Your task to perform on an android device: open the mobile data screen to see how much data has been used Image 0: 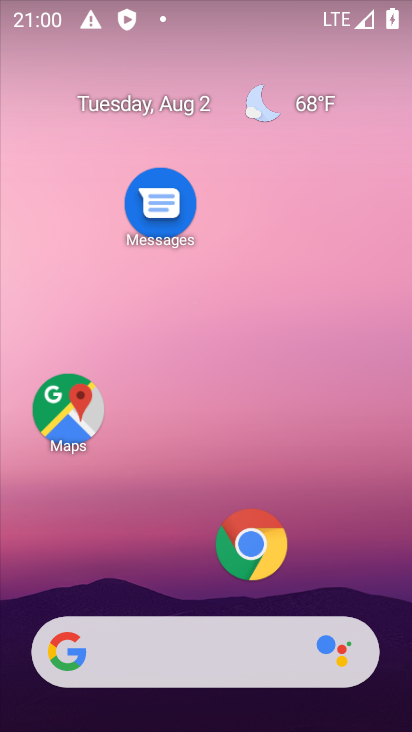
Step 0: drag from (177, 567) to (225, 118)
Your task to perform on an android device: open the mobile data screen to see how much data has been used Image 1: 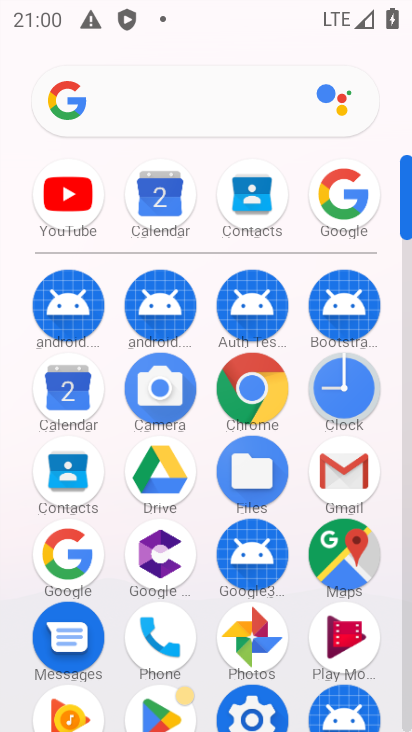
Step 1: drag from (113, 513) to (143, 237)
Your task to perform on an android device: open the mobile data screen to see how much data has been used Image 2: 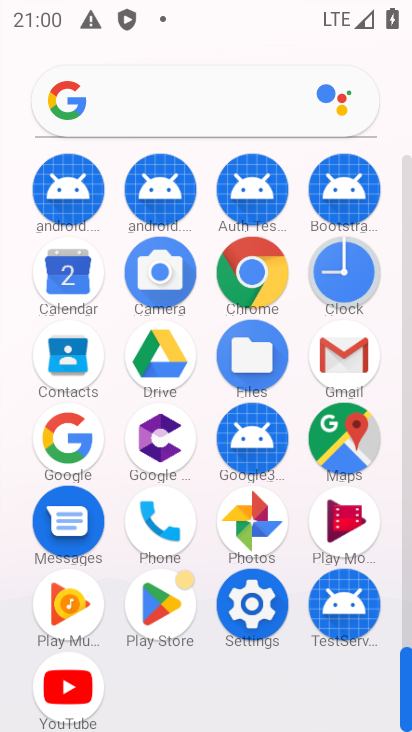
Step 2: click (254, 601)
Your task to perform on an android device: open the mobile data screen to see how much data has been used Image 3: 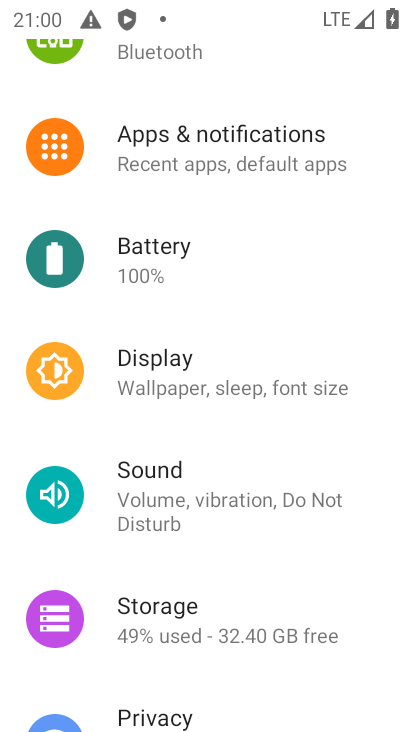
Step 3: drag from (247, 246) to (277, 587)
Your task to perform on an android device: open the mobile data screen to see how much data has been used Image 4: 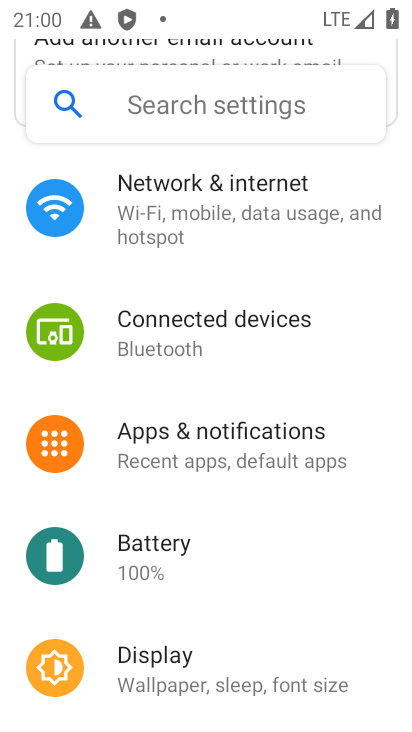
Step 4: click (193, 233)
Your task to perform on an android device: open the mobile data screen to see how much data has been used Image 5: 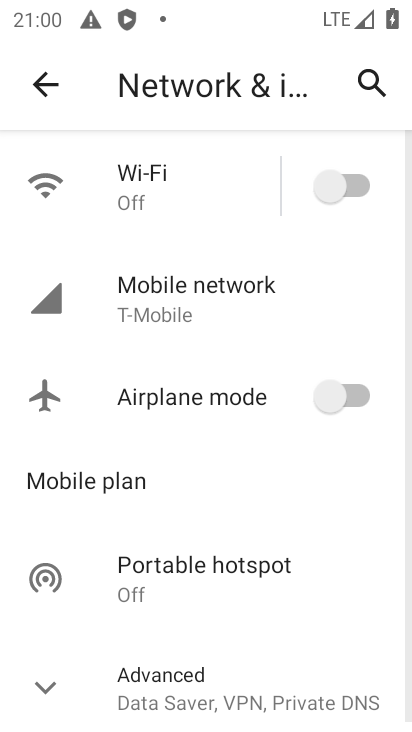
Step 5: click (193, 283)
Your task to perform on an android device: open the mobile data screen to see how much data has been used Image 6: 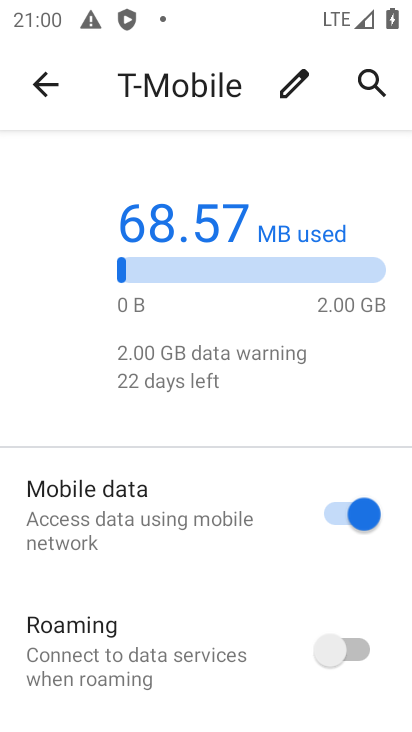
Step 6: drag from (180, 587) to (214, 321)
Your task to perform on an android device: open the mobile data screen to see how much data has been used Image 7: 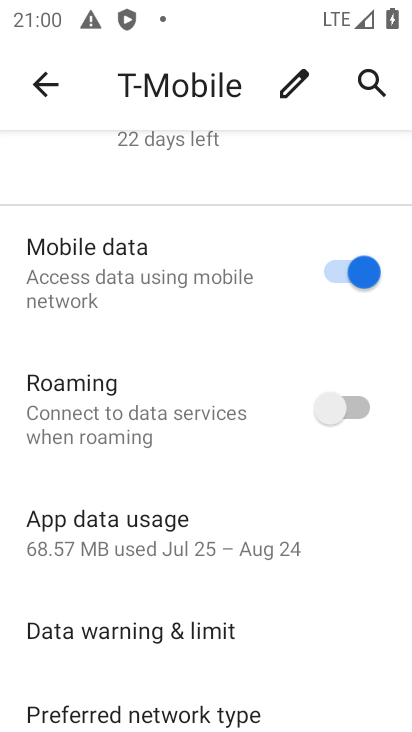
Step 7: click (186, 508)
Your task to perform on an android device: open the mobile data screen to see how much data has been used Image 8: 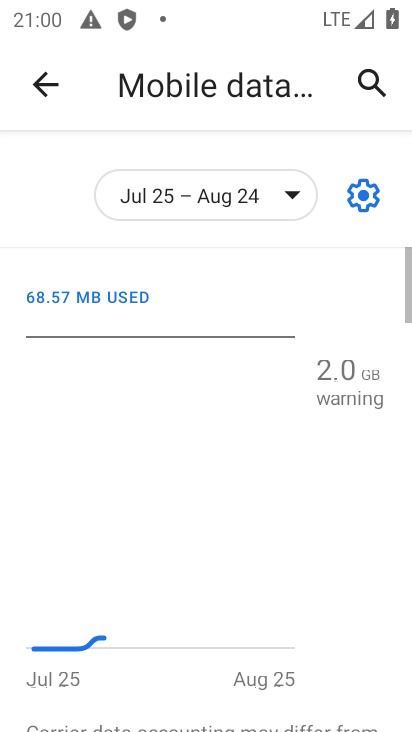
Step 8: task complete